Your task to perform on an android device: check android version Image 0: 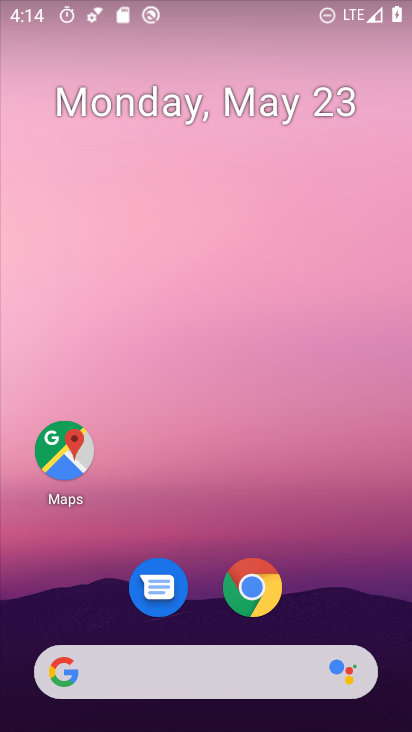
Step 0: drag from (203, 629) to (242, 16)
Your task to perform on an android device: check android version Image 1: 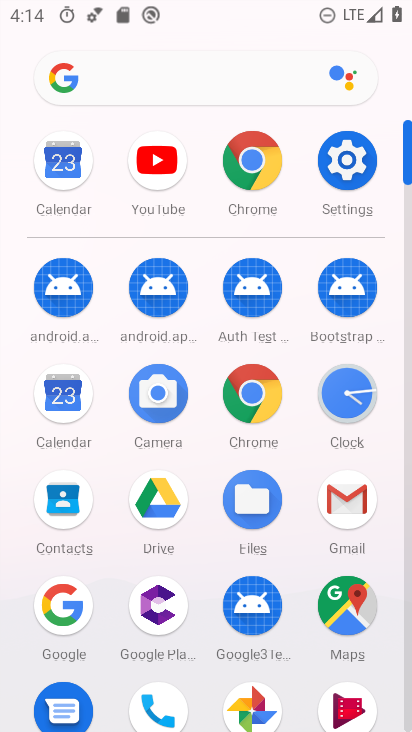
Step 1: click (344, 164)
Your task to perform on an android device: check android version Image 2: 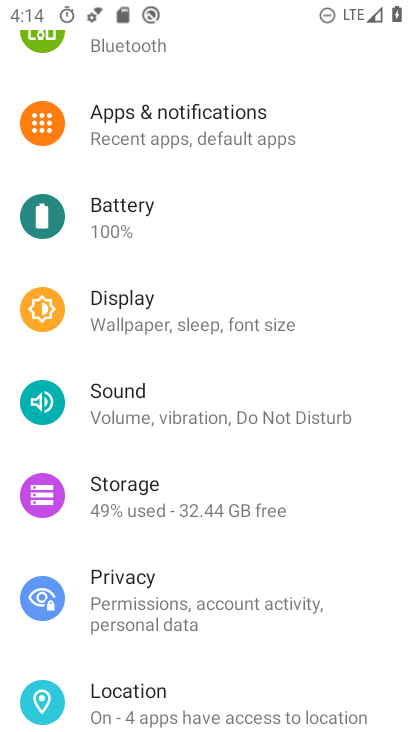
Step 2: drag from (189, 650) to (279, 0)
Your task to perform on an android device: check android version Image 3: 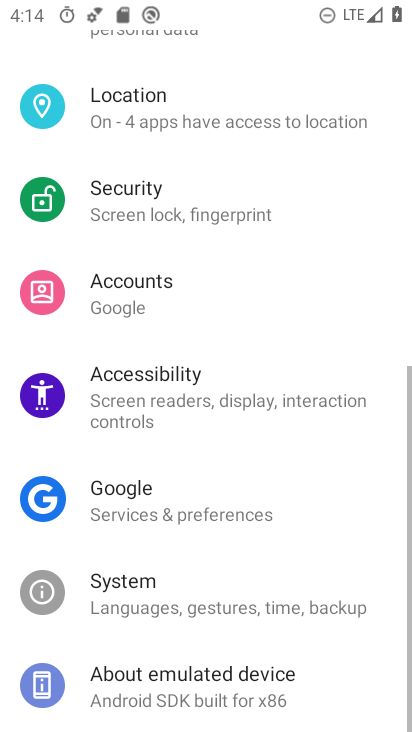
Step 3: drag from (232, 573) to (272, 118)
Your task to perform on an android device: check android version Image 4: 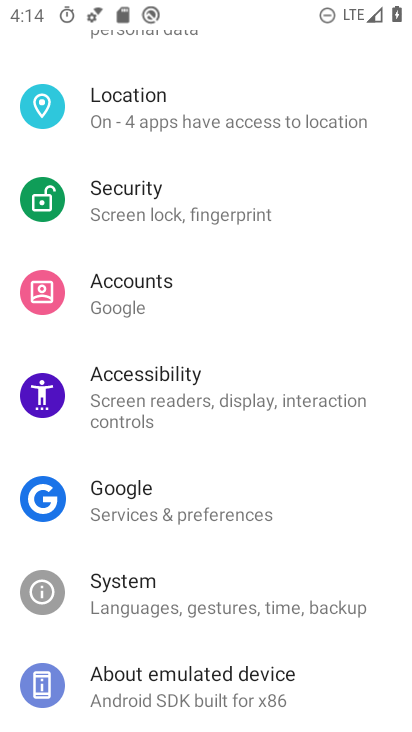
Step 4: click (209, 676)
Your task to perform on an android device: check android version Image 5: 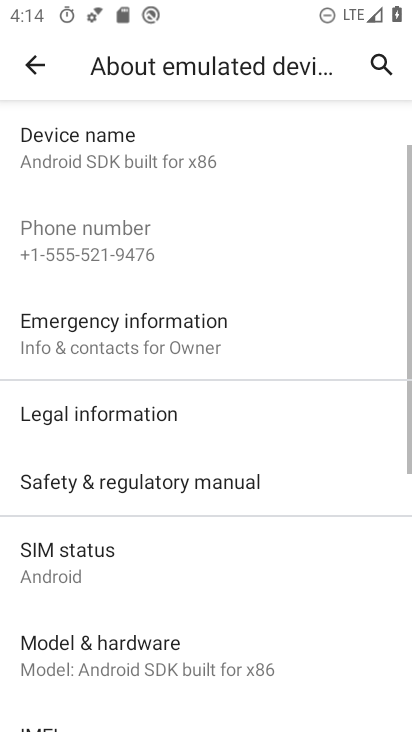
Step 5: drag from (171, 509) to (210, 59)
Your task to perform on an android device: check android version Image 6: 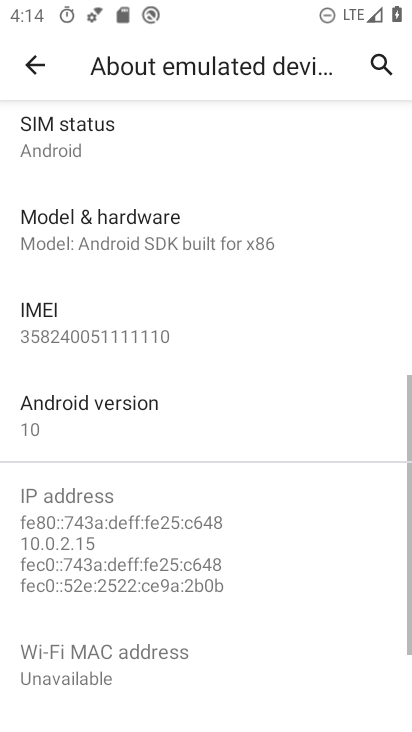
Step 6: click (134, 412)
Your task to perform on an android device: check android version Image 7: 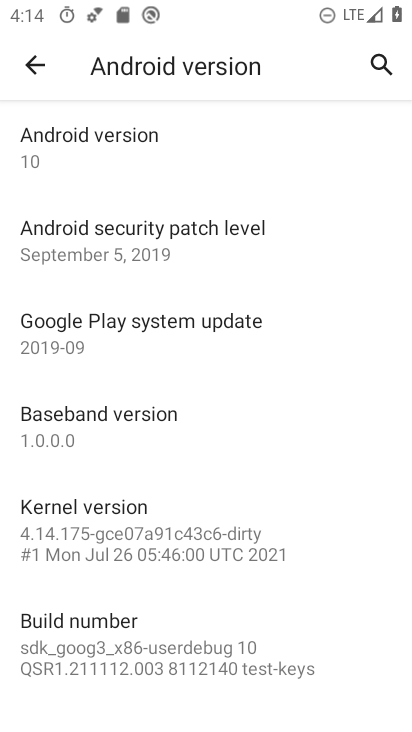
Step 7: task complete